Your task to perform on an android device: turn off notifications settings in the gmail app Image 0: 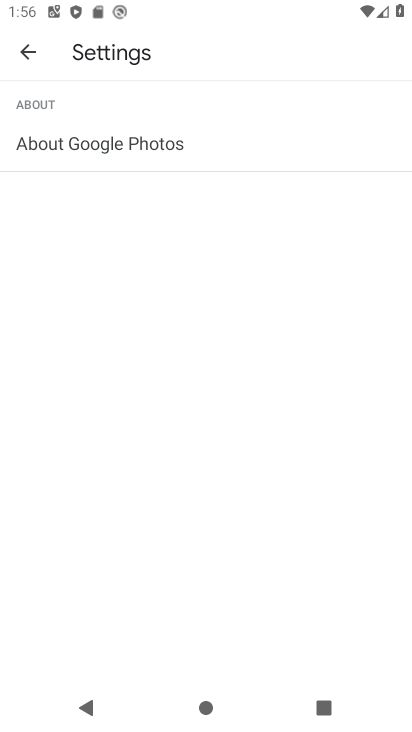
Step 0: press home button
Your task to perform on an android device: turn off notifications settings in the gmail app Image 1: 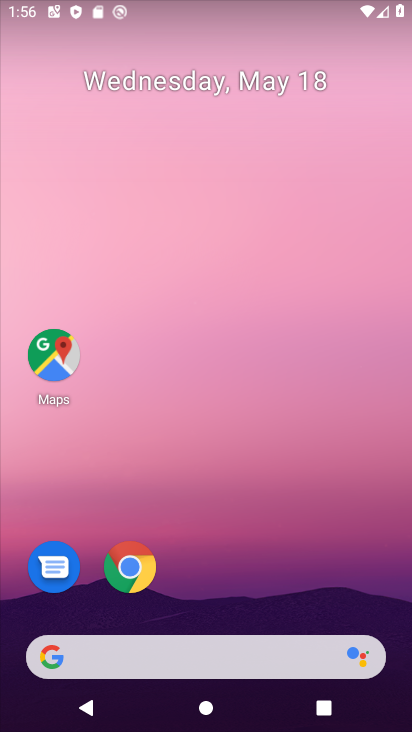
Step 1: drag from (239, 586) to (222, 30)
Your task to perform on an android device: turn off notifications settings in the gmail app Image 2: 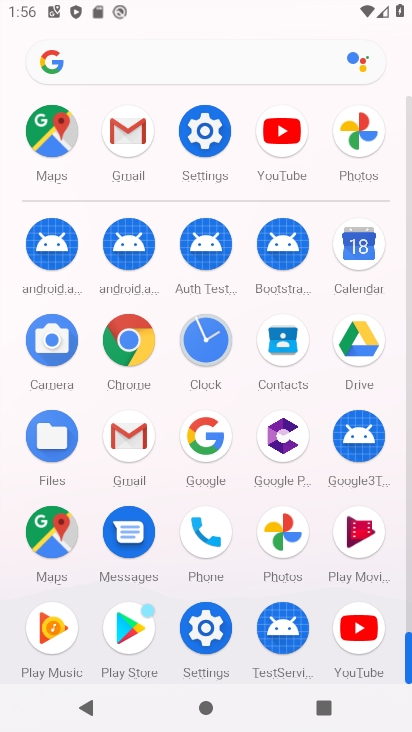
Step 2: click (142, 124)
Your task to perform on an android device: turn off notifications settings in the gmail app Image 3: 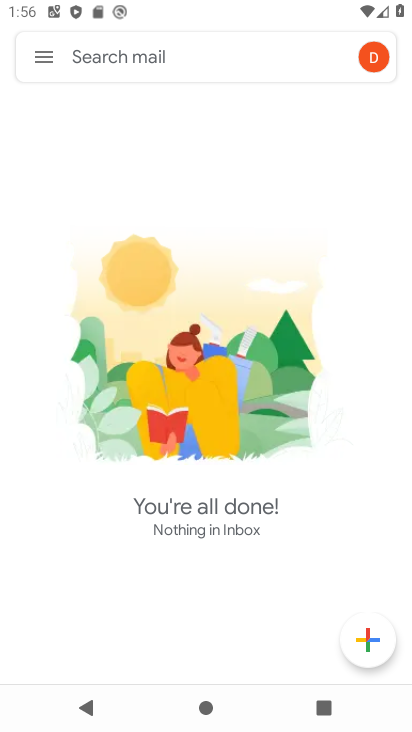
Step 3: click (41, 53)
Your task to perform on an android device: turn off notifications settings in the gmail app Image 4: 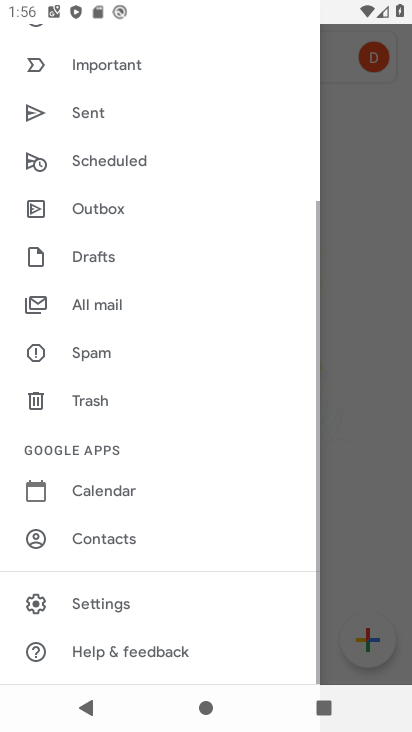
Step 4: drag from (151, 493) to (199, 96)
Your task to perform on an android device: turn off notifications settings in the gmail app Image 5: 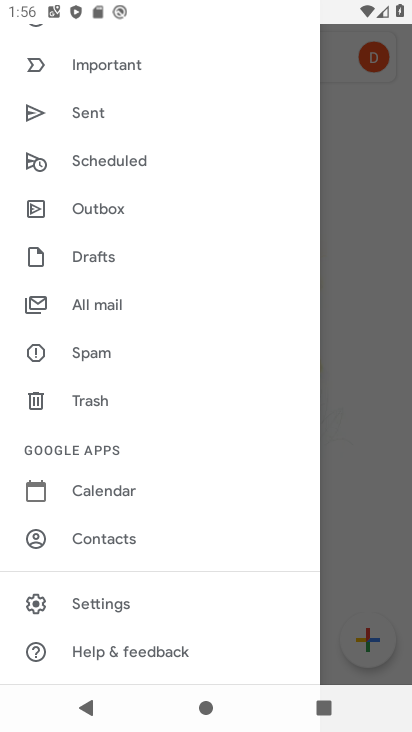
Step 5: click (111, 619)
Your task to perform on an android device: turn off notifications settings in the gmail app Image 6: 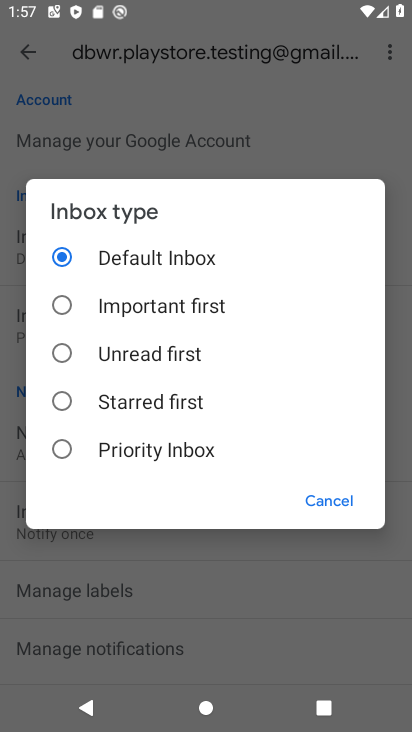
Step 6: click (329, 504)
Your task to perform on an android device: turn off notifications settings in the gmail app Image 7: 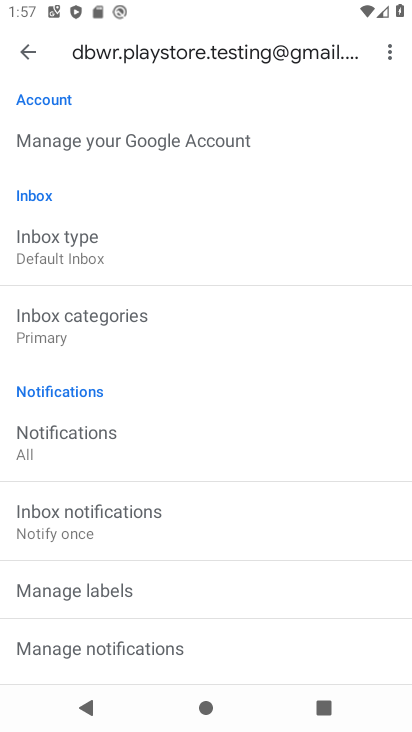
Step 7: click (121, 643)
Your task to perform on an android device: turn off notifications settings in the gmail app Image 8: 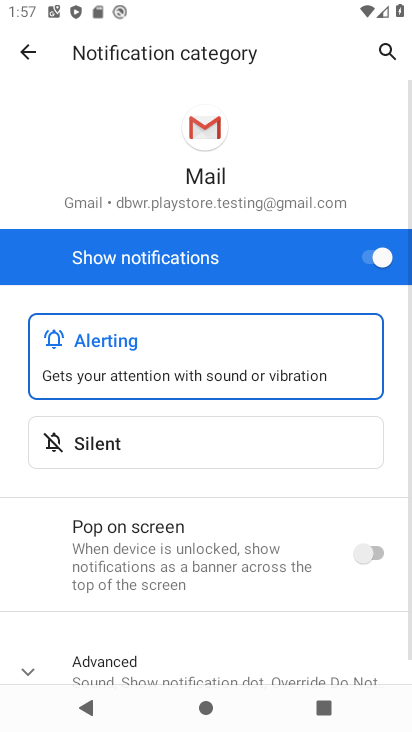
Step 8: click (358, 257)
Your task to perform on an android device: turn off notifications settings in the gmail app Image 9: 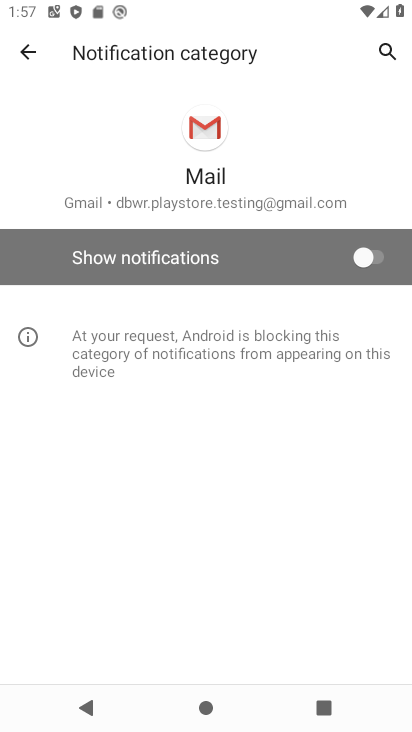
Step 9: task complete